Your task to perform on an android device: open app "Spotify" Image 0: 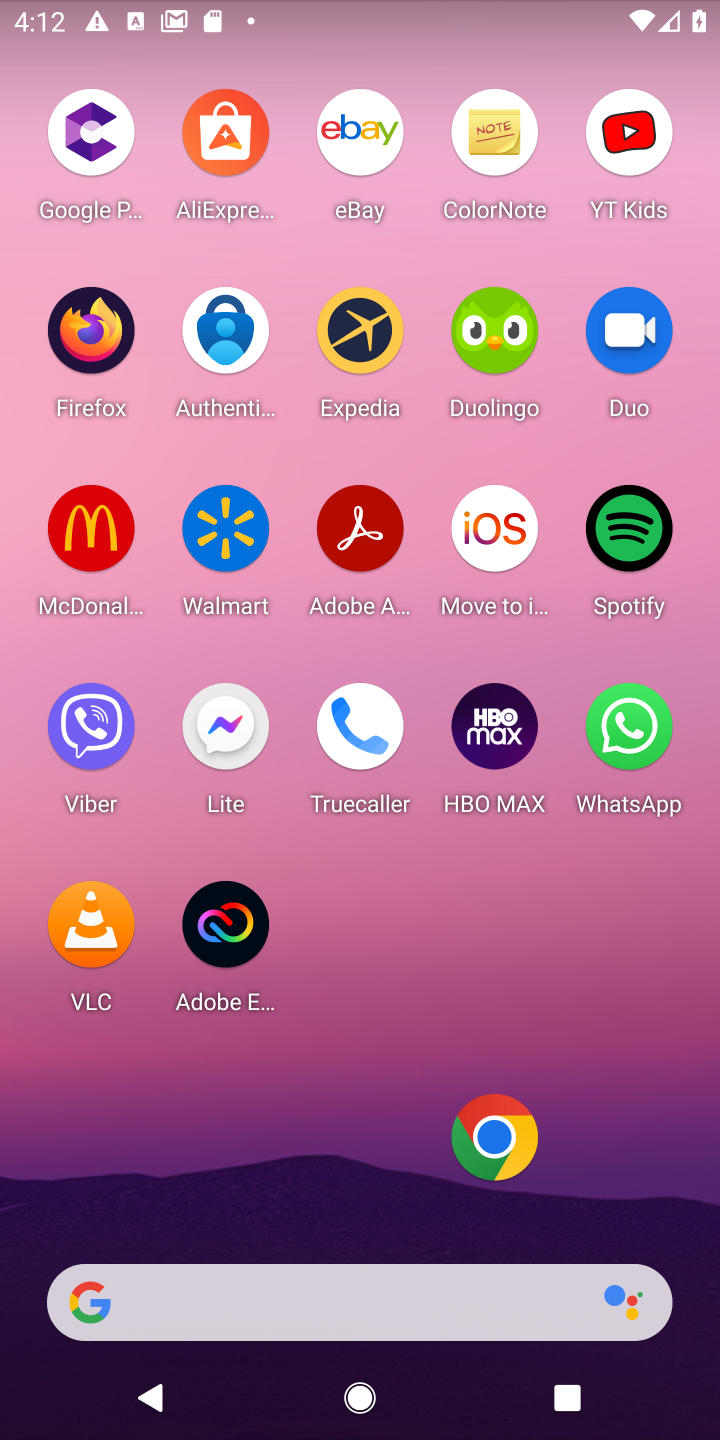
Step 0: drag from (276, 1174) to (434, 0)
Your task to perform on an android device: open app "Spotify" Image 1: 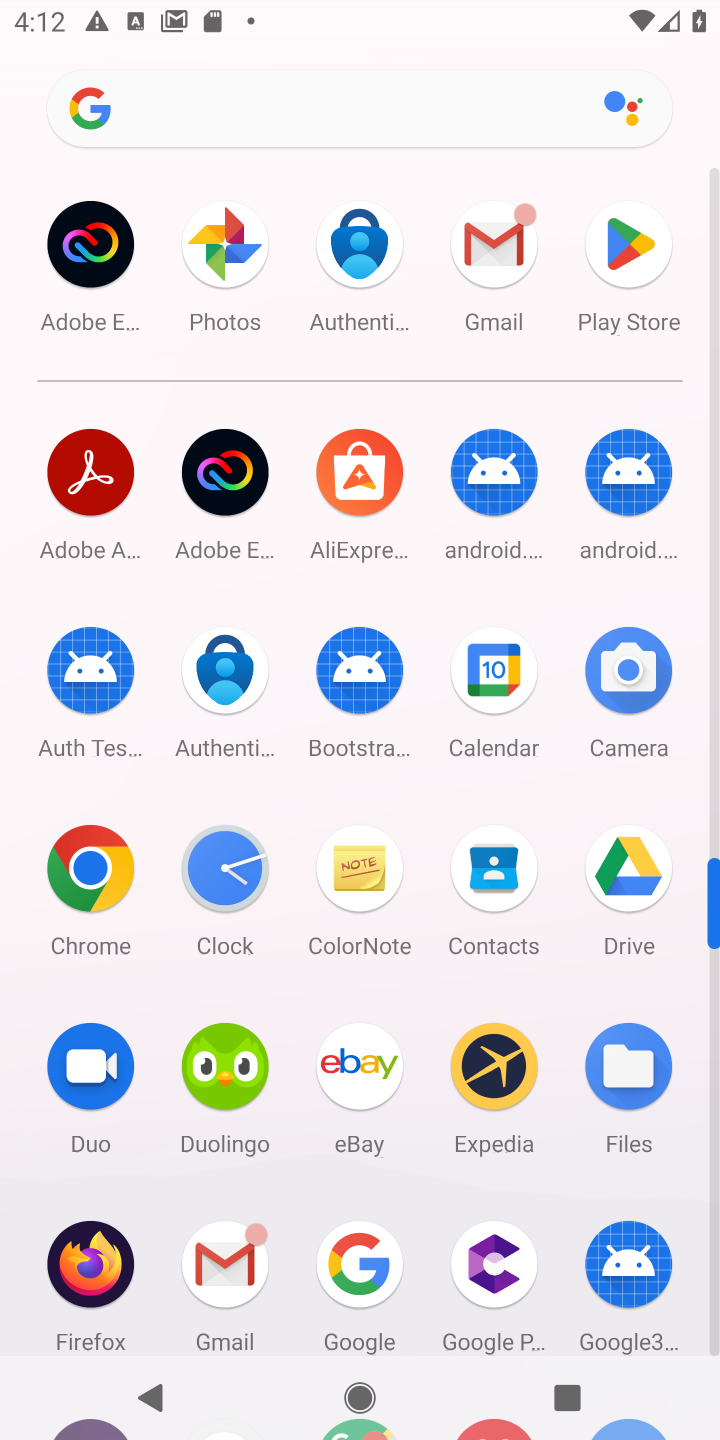
Step 1: click (636, 266)
Your task to perform on an android device: open app "Spotify" Image 2: 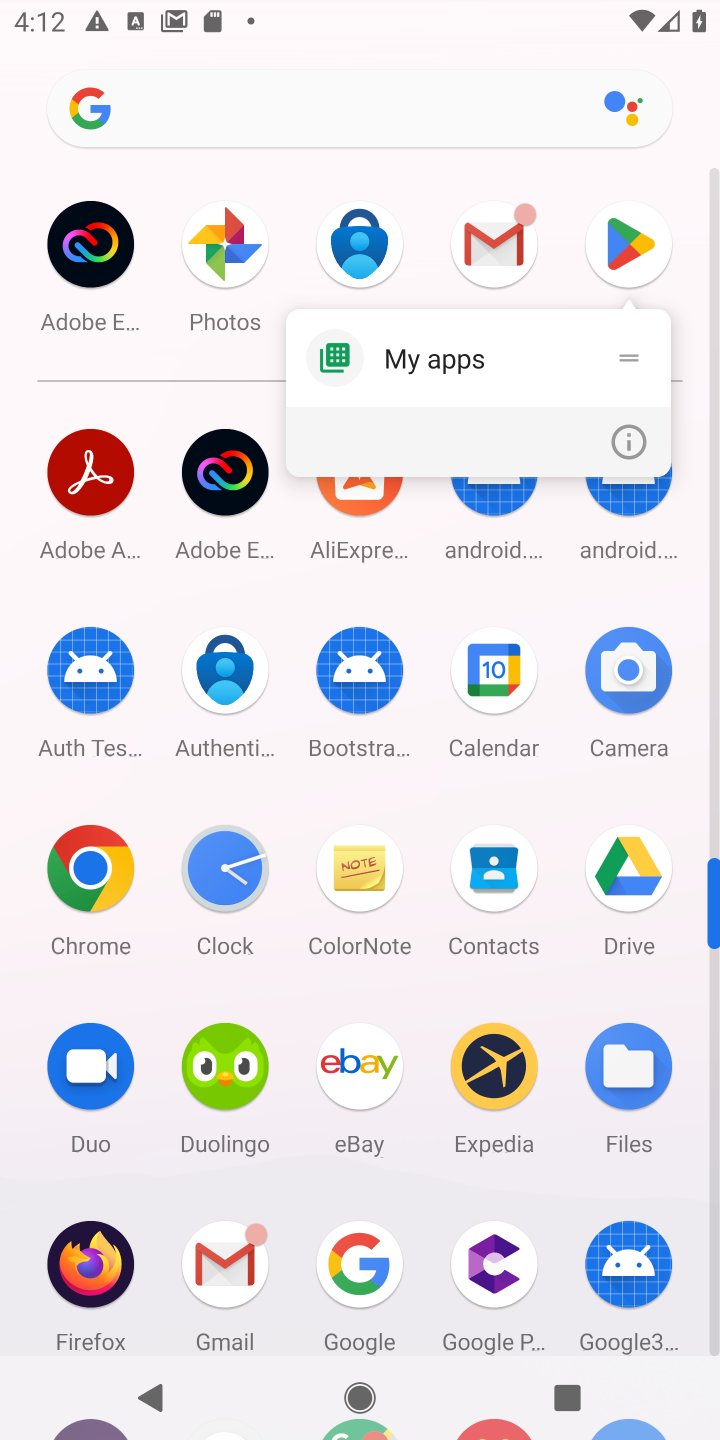
Step 2: click (642, 260)
Your task to perform on an android device: open app "Spotify" Image 3: 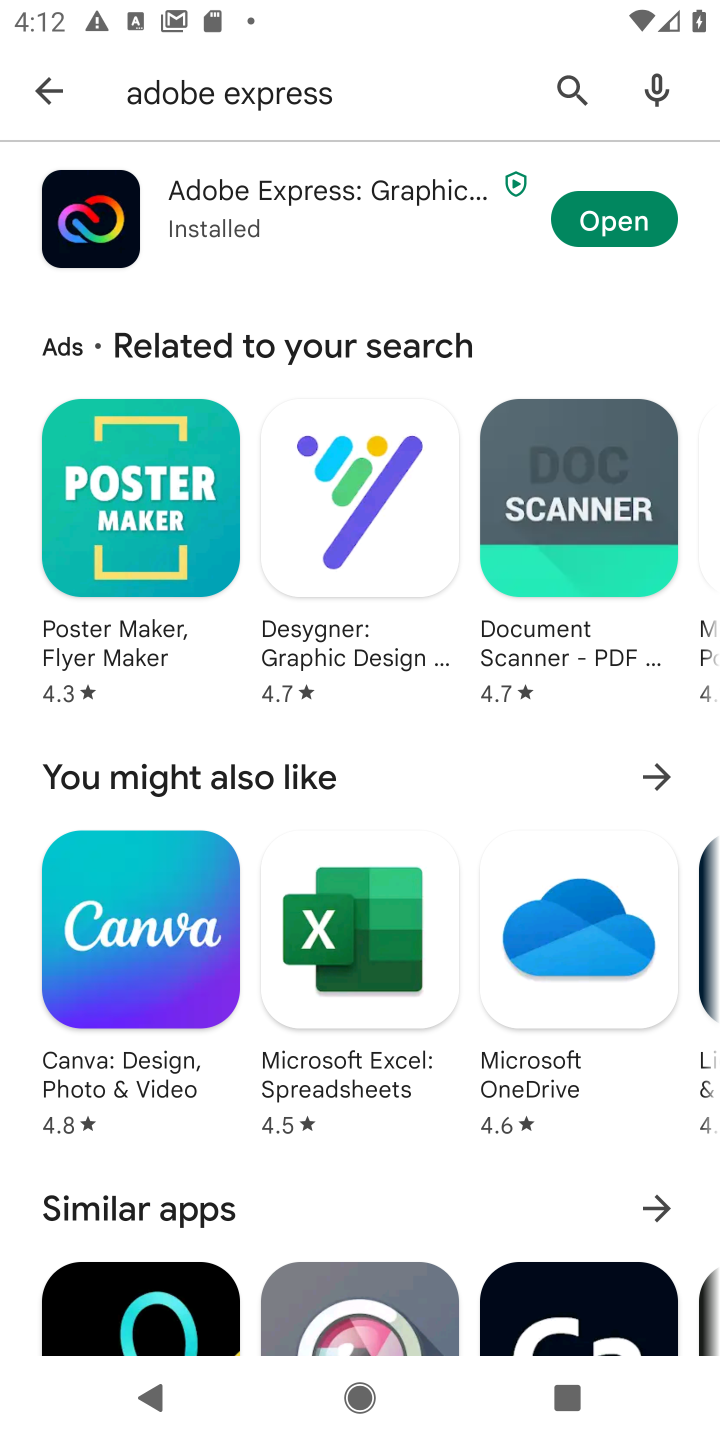
Step 3: click (342, 117)
Your task to perform on an android device: open app "Spotify" Image 4: 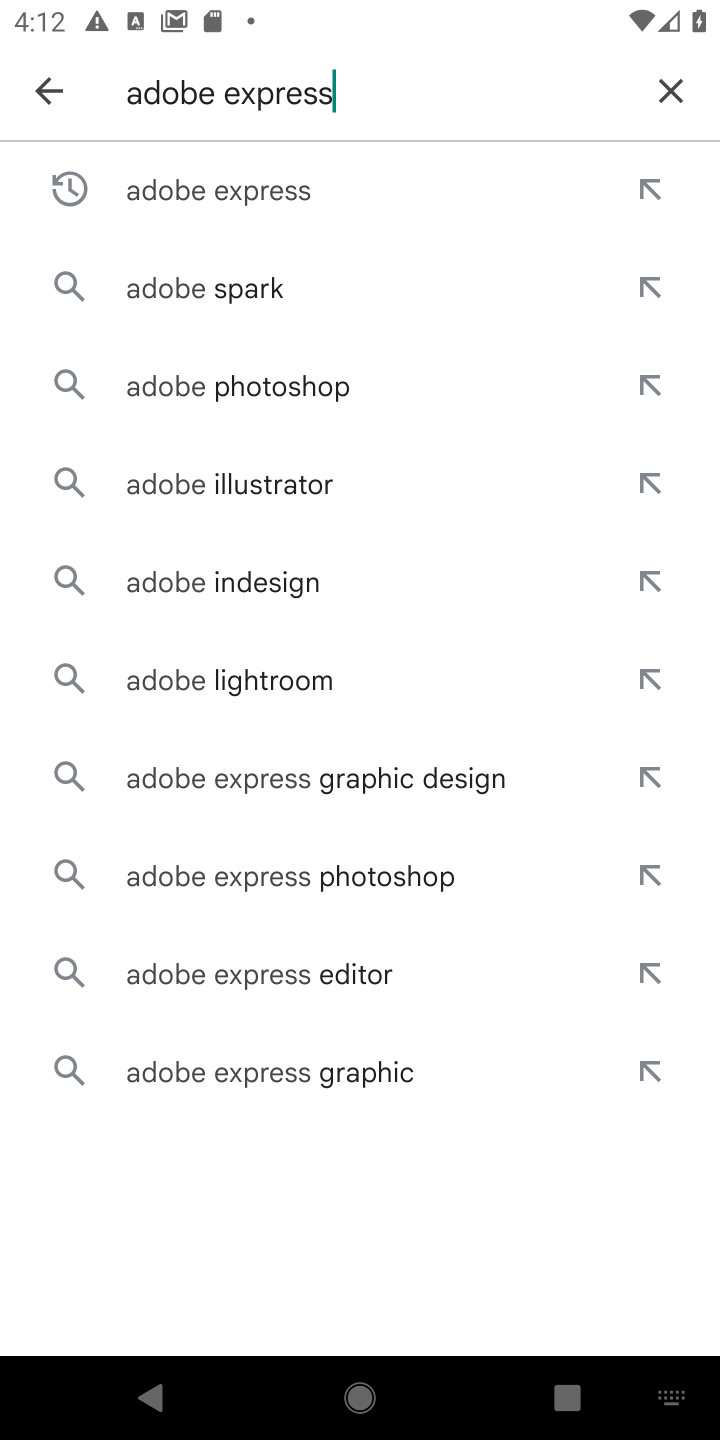
Step 4: click (680, 82)
Your task to perform on an android device: open app "Spotify" Image 5: 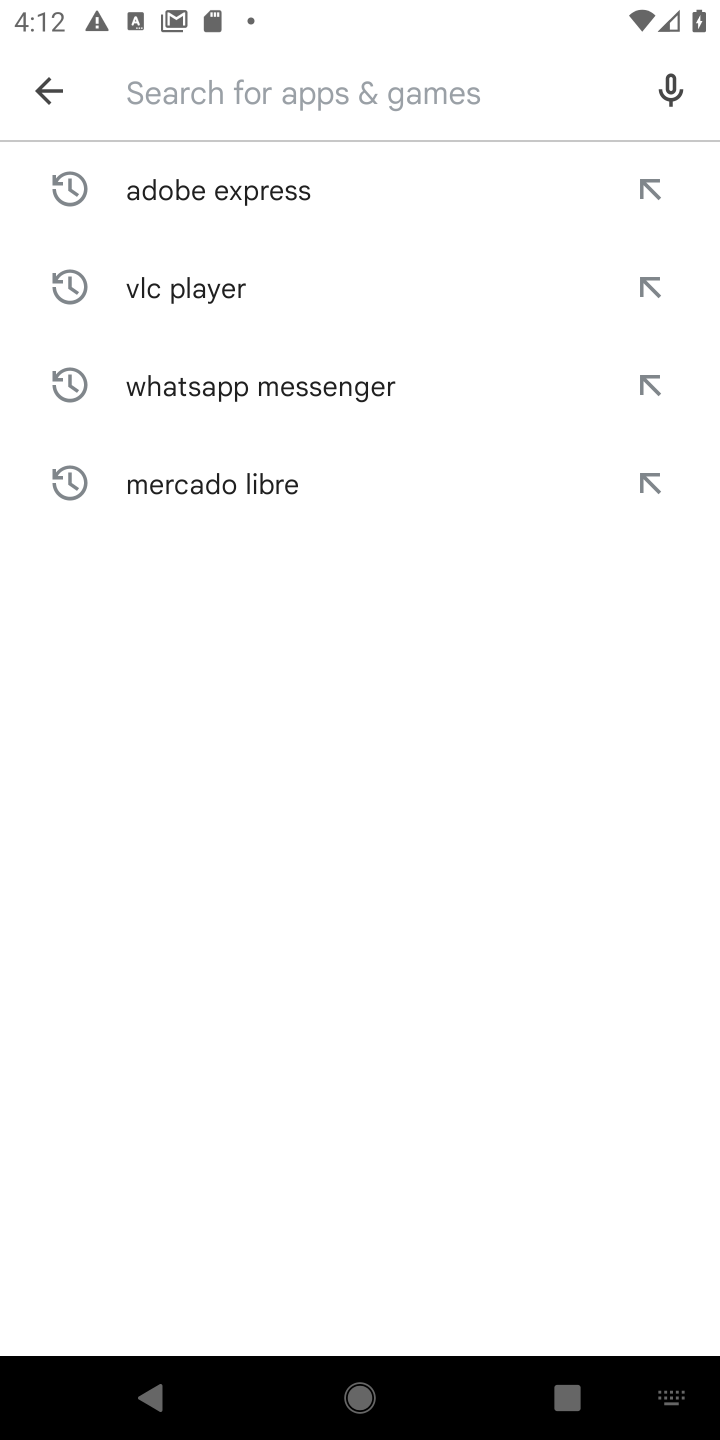
Step 5: type "spotify"
Your task to perform on an android device: open app "Spotify" Image 6: 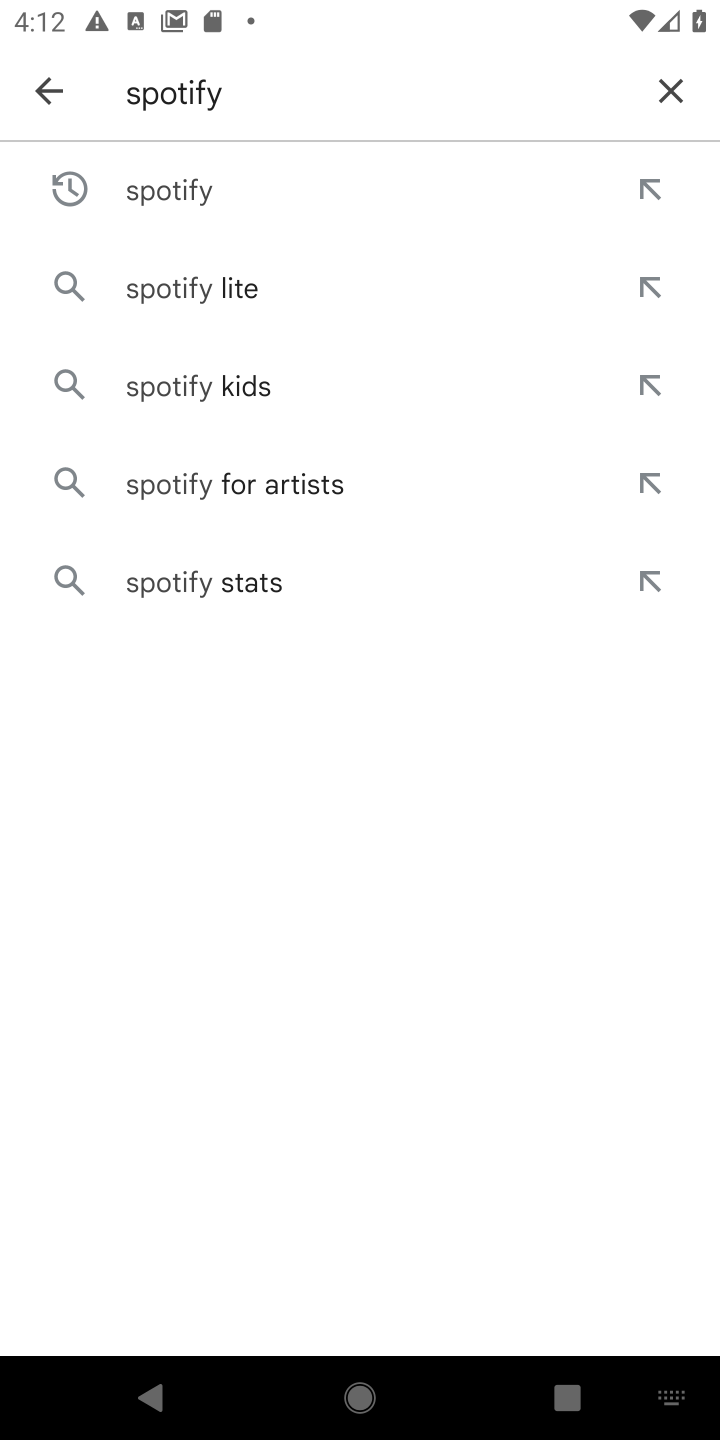
Step 6: click (195, 202)
Your task to perform on an android device: open app "Spotify" Image 7: 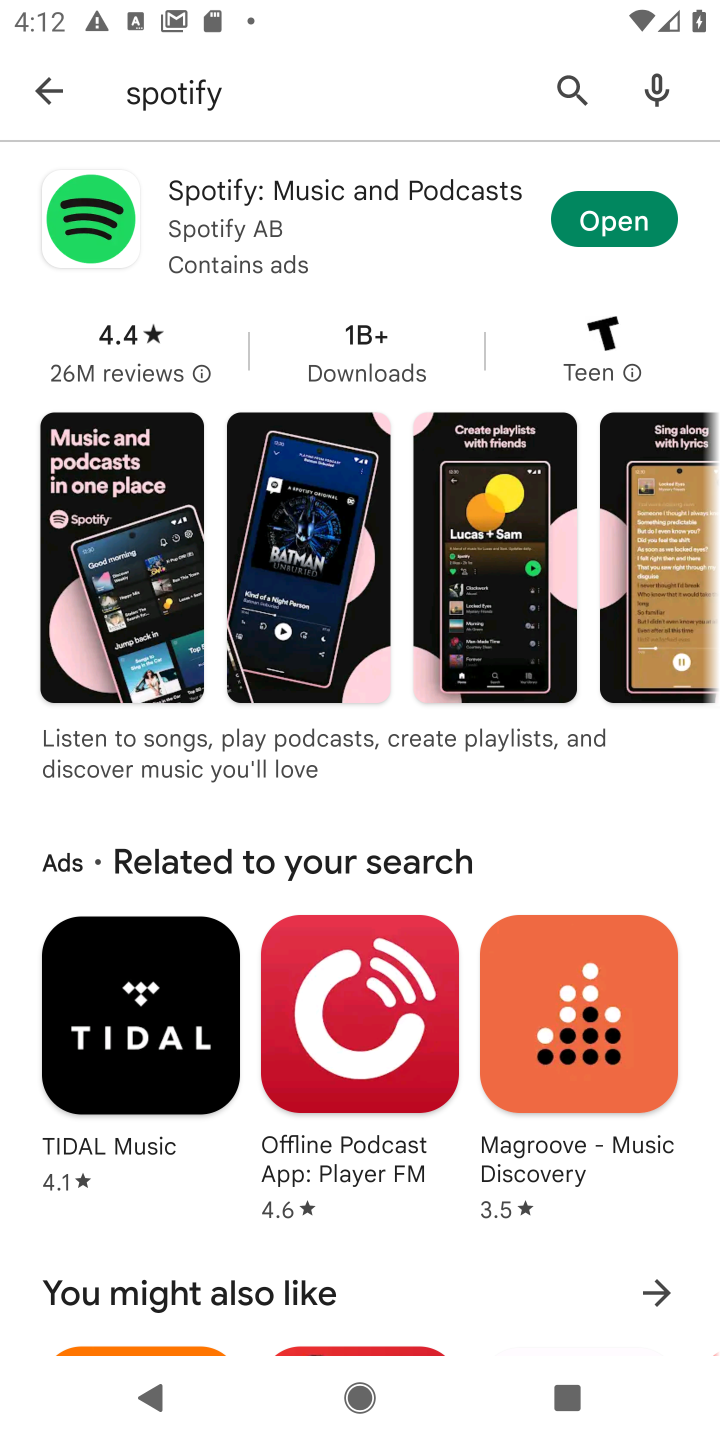
Step 7: click (598, 216)
Your task to perform on an android device: open app "Spotify" Image 8: 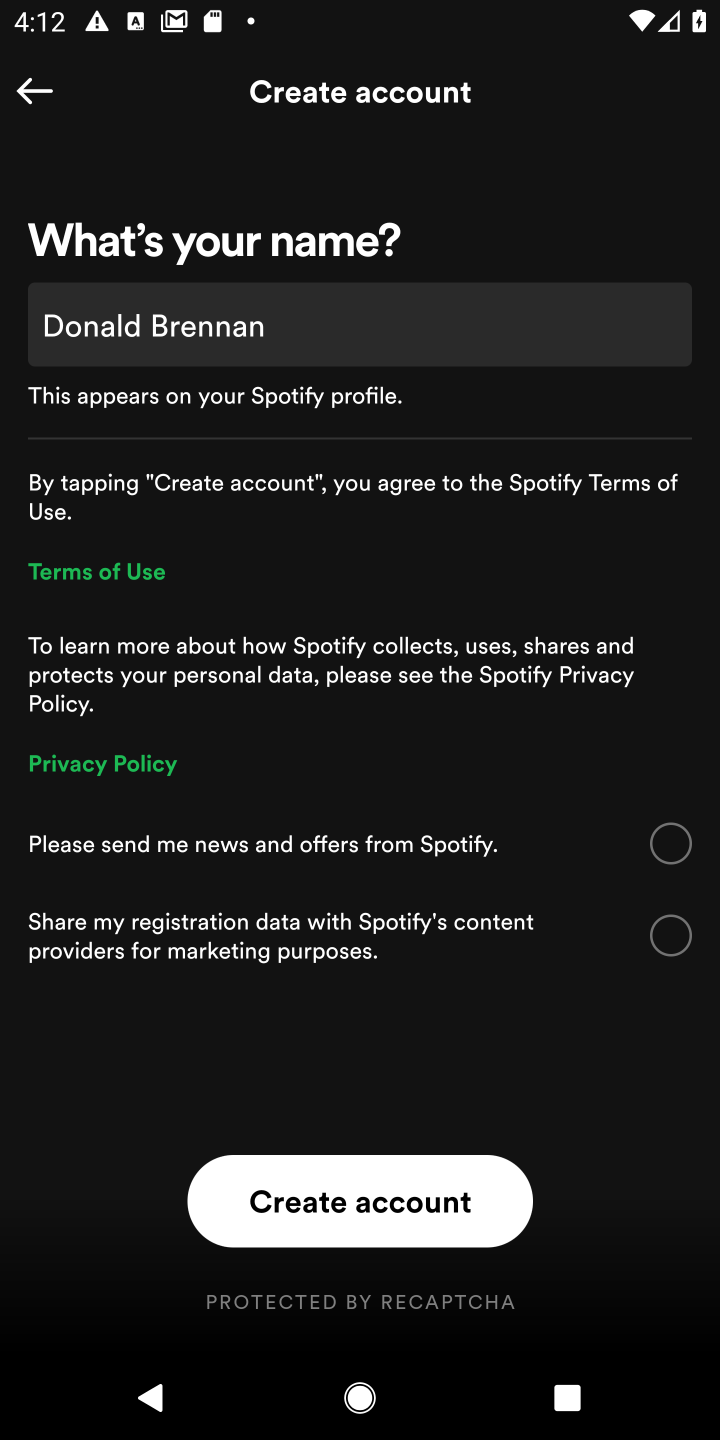
Step 8: task complete